Your task to perform on an android device: toggle airplane mode Image 0: 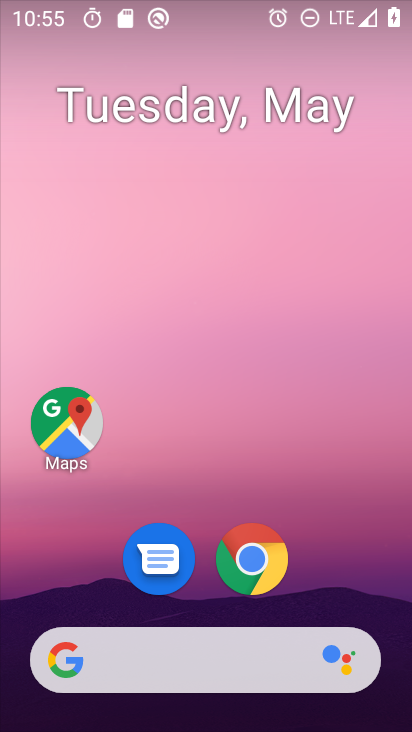
Step 0: drag from (232, 4) to (286, 436)
Your task to perform on an android device: toggle airplane mode Image 1: 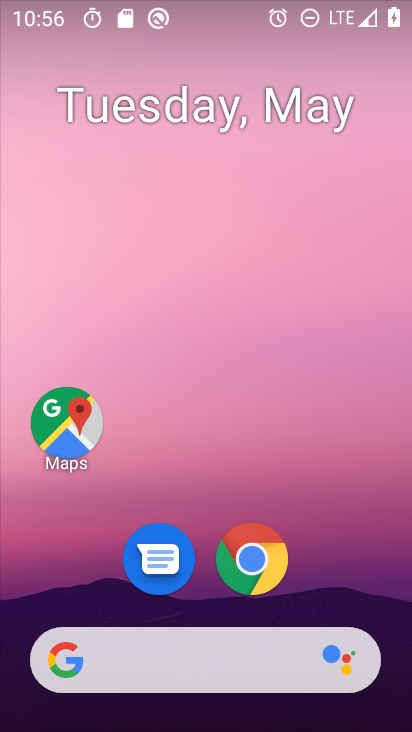
Step 1: drag from (259, 5) to (252, 467)
Your task to perform on an android device: toggle airplane mode Image 2: 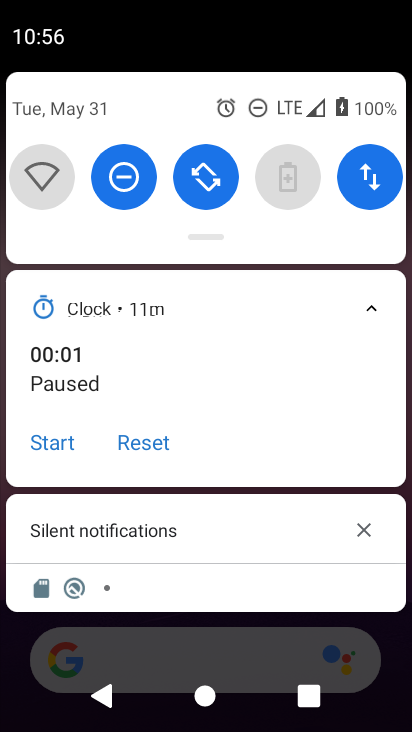
Step 2: drag from (276, 236) to (209, 668)
Your task to perform on an android device: toggle airplane mode Image 3: 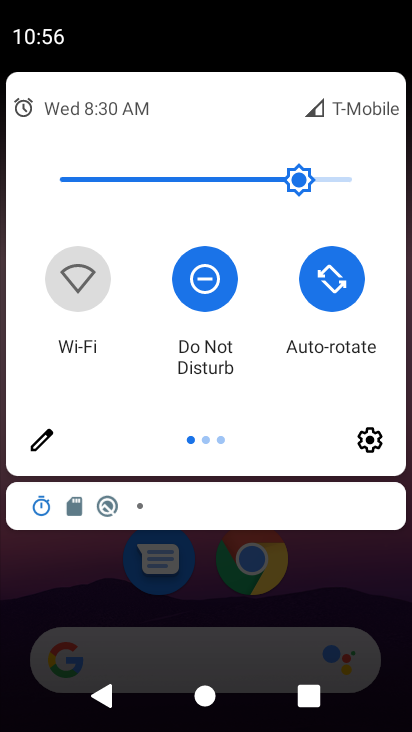
Step 3: drag from (366, 339) to (1, 346)
Your task to perform on an android device: toggle airplane mode Image 4: 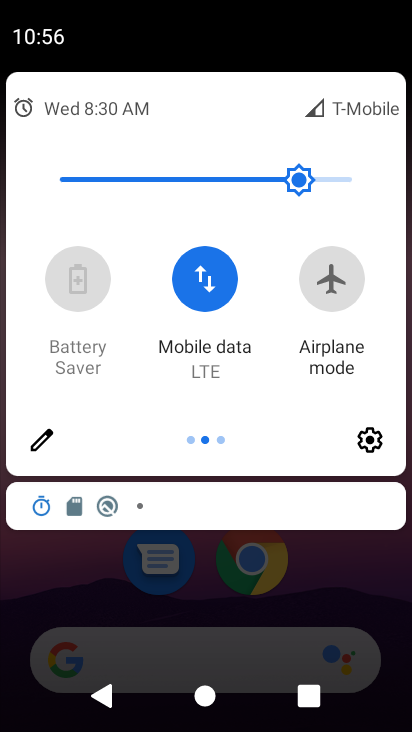
Step 4: click (329, 283)
Your task to perform on an android device: toggle airplane mode Image 5: 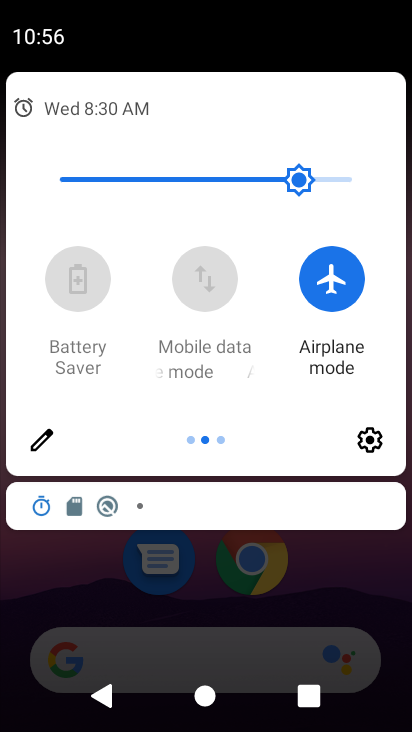
Step 5: task complete